Your task to perform on an android device: allow notifications from all sites in the chrome app Image 0: 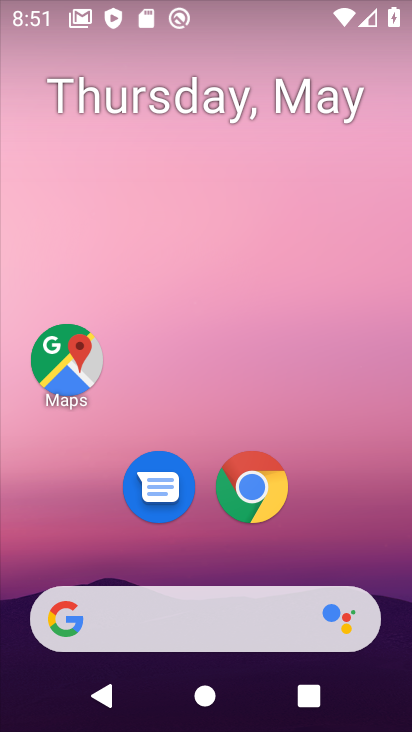
Step 0: drag from (194, 543) to (182, 39)
Your task to perform on an android device: allow notifications from all sites in the chrome app Image 1: 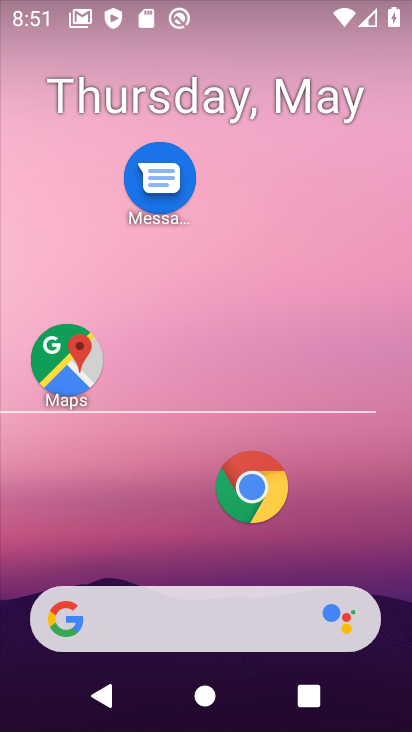
Step 1: click (245, 579)
Your task to perform on an android device: allow notifications from all sites in the chrome app Image 2: 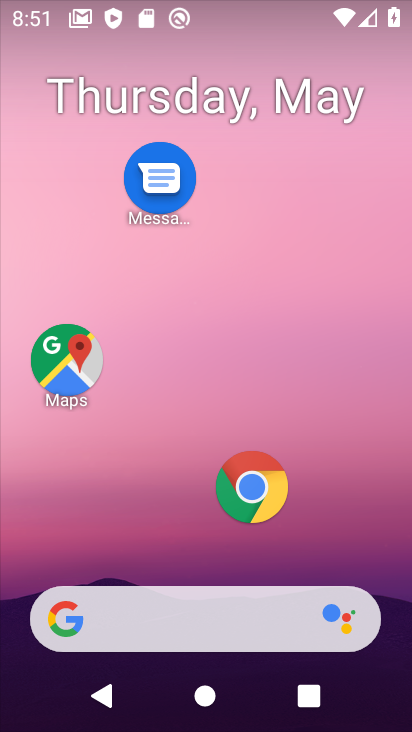
Step 2: drag from (245, 579) to (165, 57)
Your task to perform on an android device: allow notifications from all sites in the chrome app Image 3: 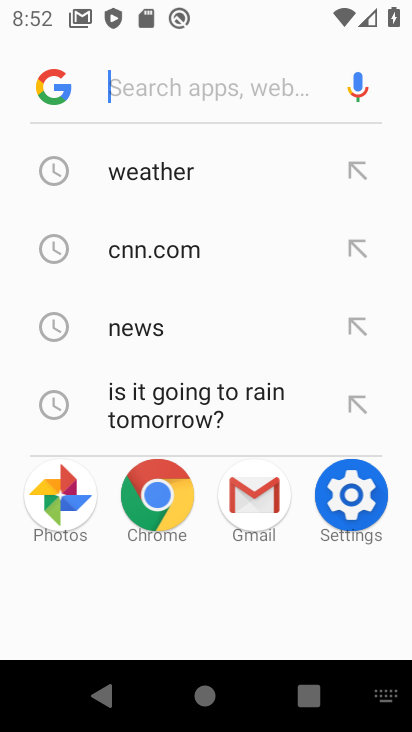
Step 3: click (166, 516)
Your task to perform on an android device: allow notifications from all sites in the chrome app Image 4: 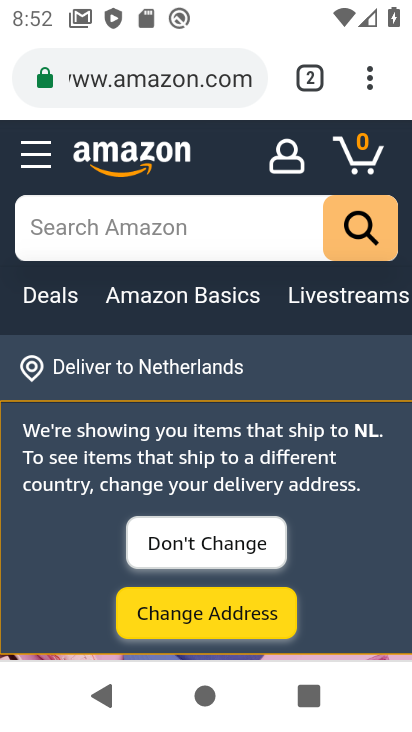
Step 4: click (371, 82)
Your task to perform on an android device: allow notifications from all sites in the chrome app Image 5: 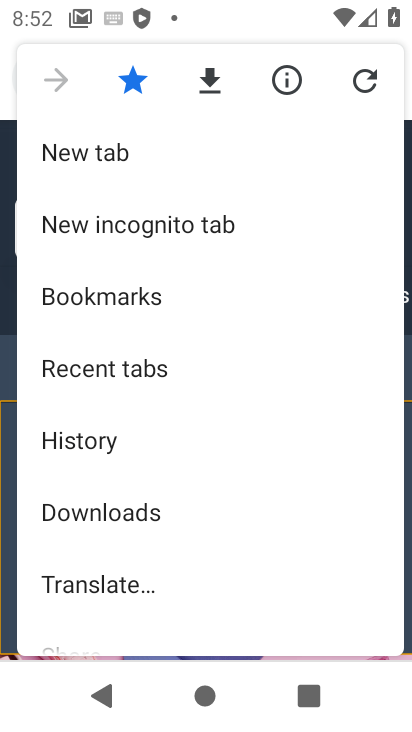
Step 5: drag from (160, 575) to (151, 153)
Your task to perform on an android device: allow notifications from all sites in the chrome app Image 6: 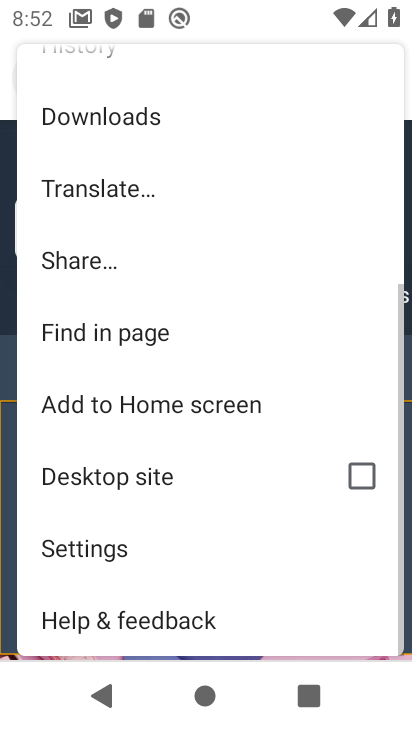
Step 6: click (56, 564)
Your task to perform on an android device: allow notifications from all sites in the chrome app Image 7: 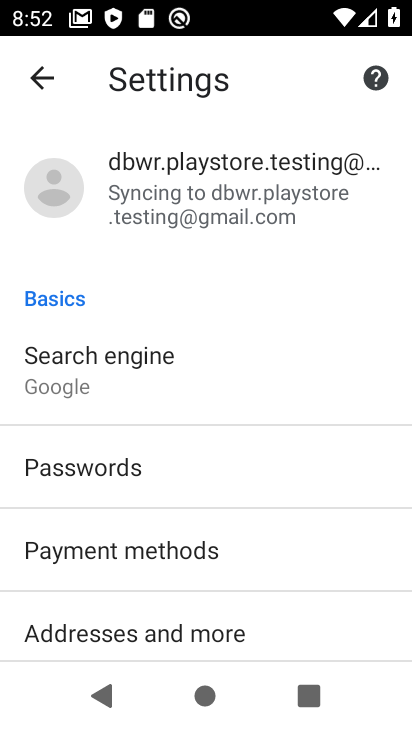
Step 7: drag from (171, 552) to (30, 97)
Your task to perform on an android device: allow notifications from all sites in the chrome app Image 8: 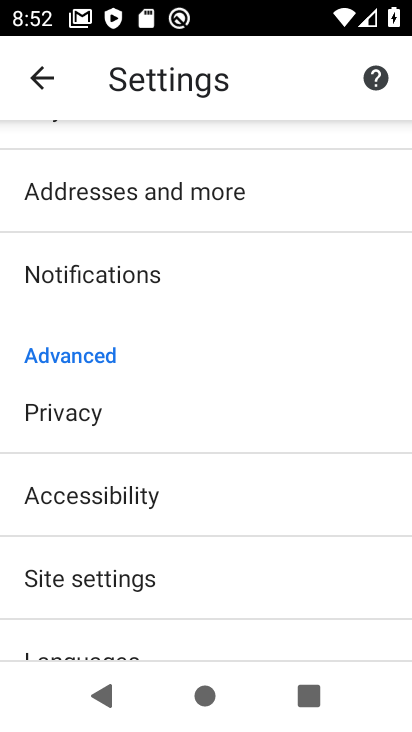
Step 8: click (89, 566)
Your task to perform on an android device: allow notifications from all sites in the chrome app Image 9: 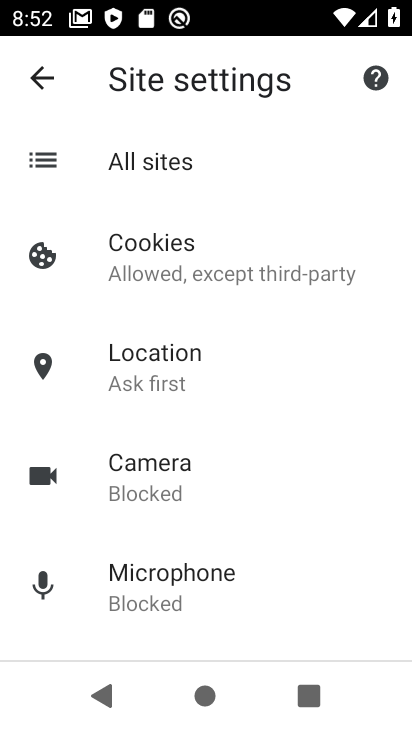
Step 9: drag from (222, 568) to (89, 120)
Your task to perform on an android device: allow notifications from all sites in the chrome app Image 10: 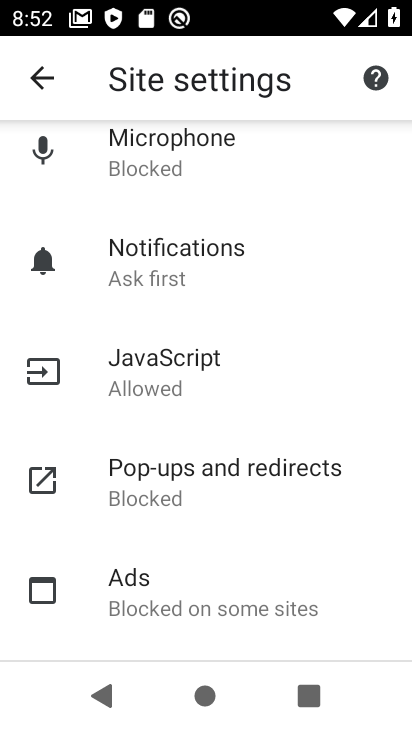
Step 10: click (199, 267)
Your task to perform on an android device: allow notifications from all sites in the chrome app Image 11: 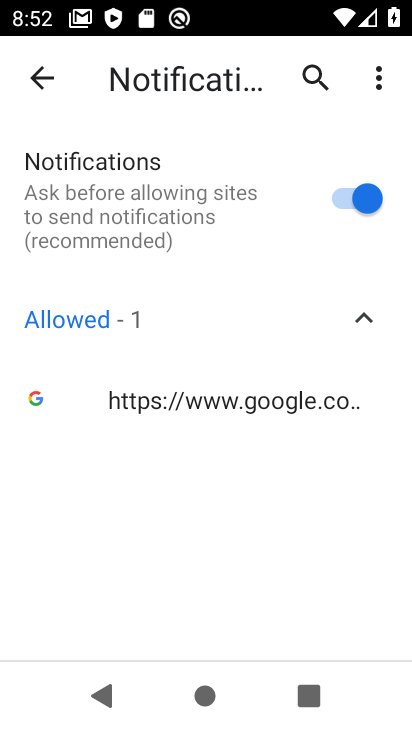
Step 11: task complete